Your task to perform on an android device: Play the last video I watched on Youtube Image 0: 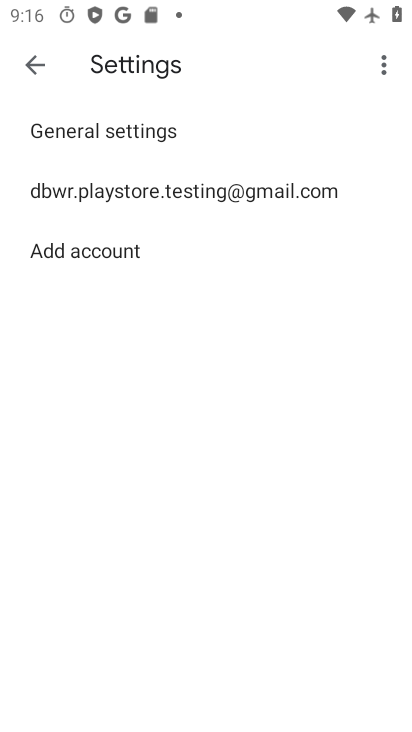
Step 0: press home button
Your task to perform on an android device: Play the last video I watched on Youtube Image 1: 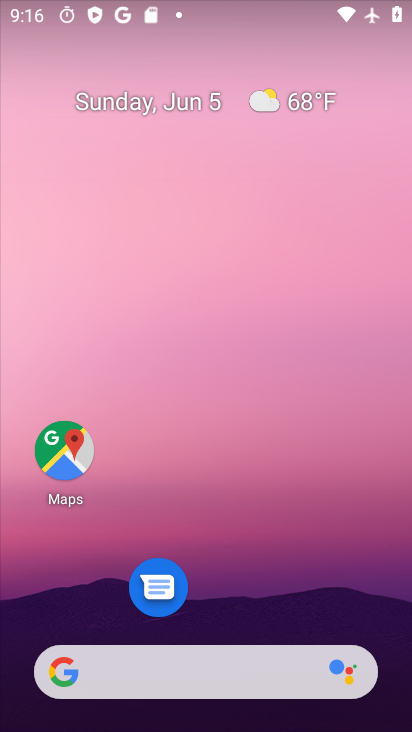
Step 1: drag from (216, 572) to (174, 11)
Your task to perform on an android device: Play the last video I watched on Youtube Image 2: 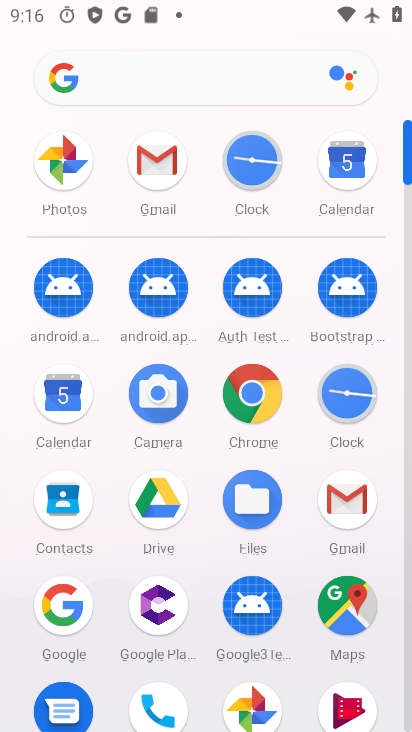
Step 2: drag from (344, 656) to (246, 217)
Your task to perform on an android device: Play the last video I watched on Youtube Image 3: 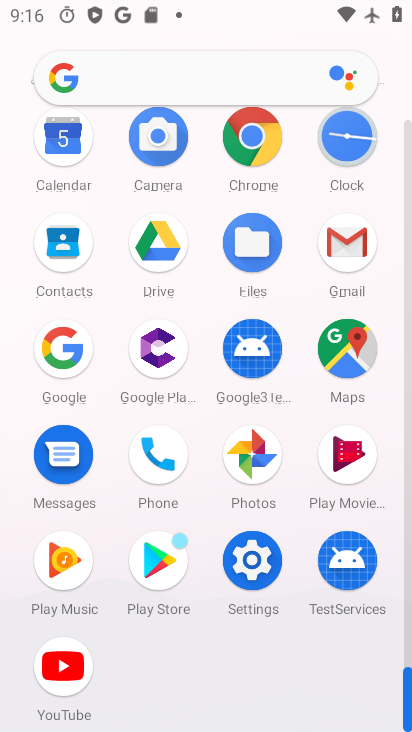
Step 3: click (67, 663)
Your task to perform on an android device: Play the last video I watched on Youtube Image 4: 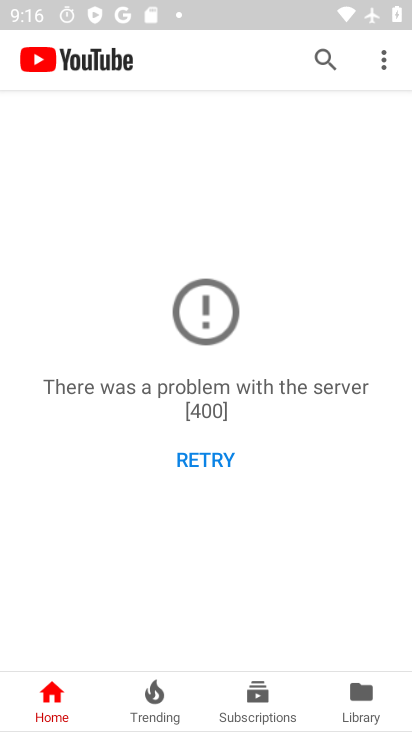
Step 4: click (194, 445)
Your task to perform on an android device: Play the last video I watched on Youtube Image 5: 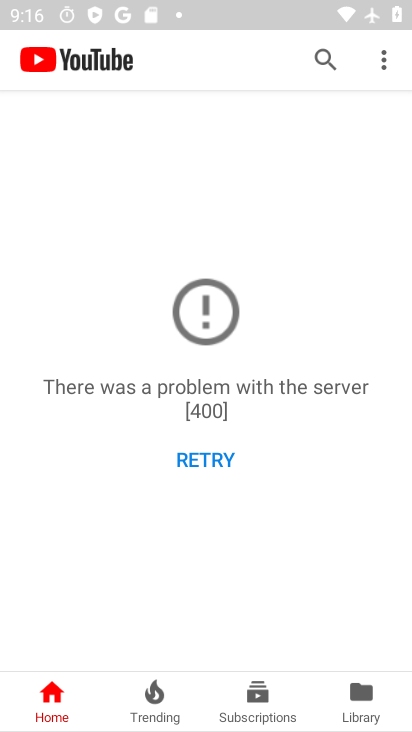
Step 5: click (199, 461)
Your task to perform on an android device: Play the last video I watched on Youtube Image 6: 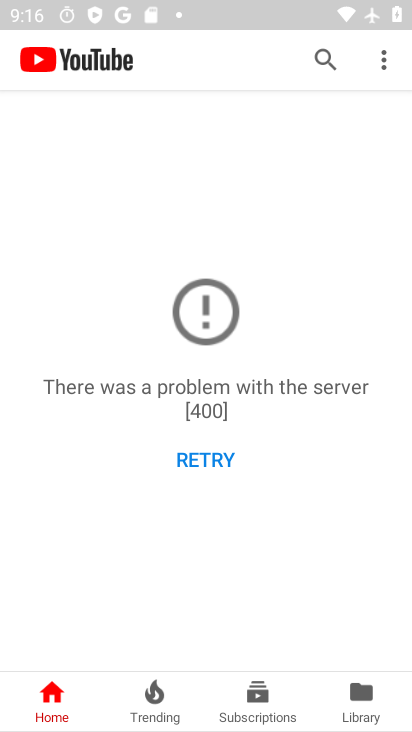
Step 6: click (199, 461)
Your task to perform on an android device: Play the last video I watched on Youtube Image 7: 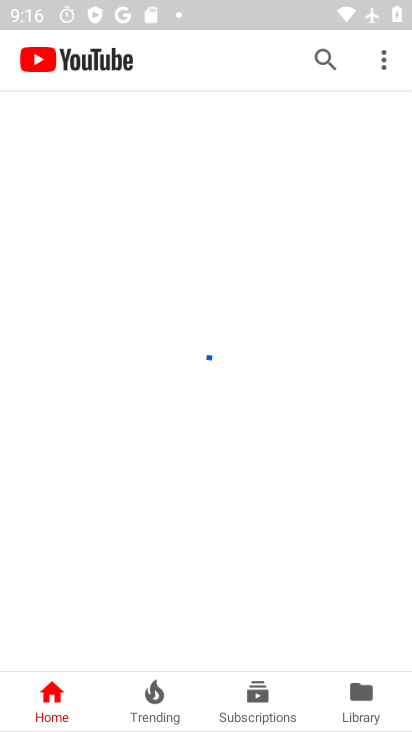
Step 7: click (199, 461)
Your task to perform on an android device: Play the last video I watched on Youtube Image 8: 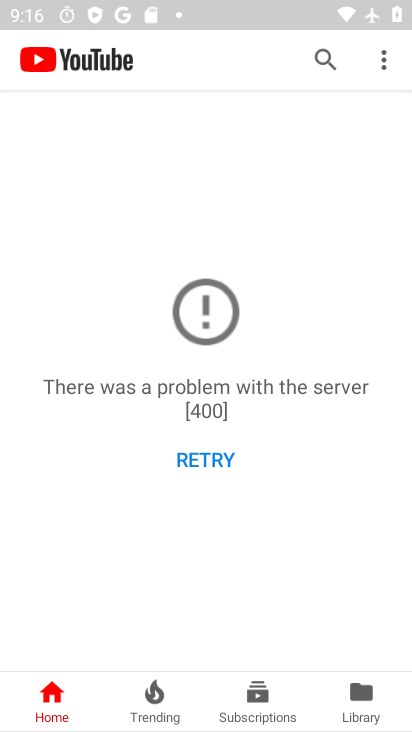
Step 8: click (199, 461)
Your task to perform on an android device: Play the last video I watched on Youtube Image 9: 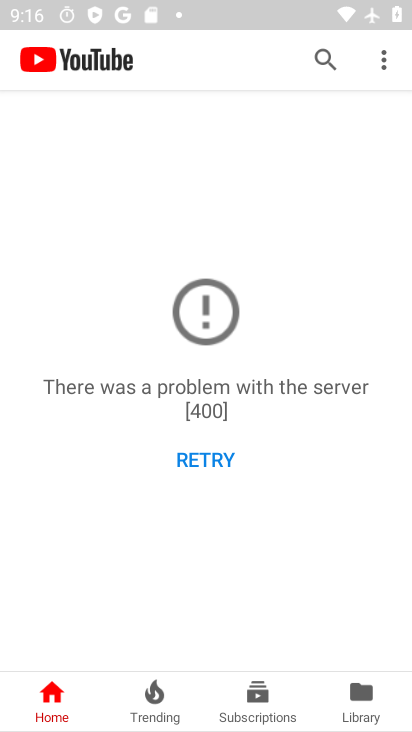
Step 9: click (199, 461)
Your task to perform on an android device: Play the last video I watched on Youtube Image 10: 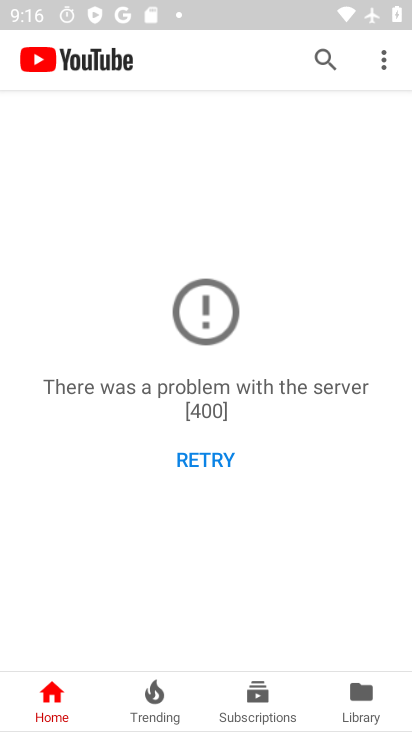
Step 10: task complete